Your task to perform on an android device: Search for Mexican restaurants on Maps Image 0: 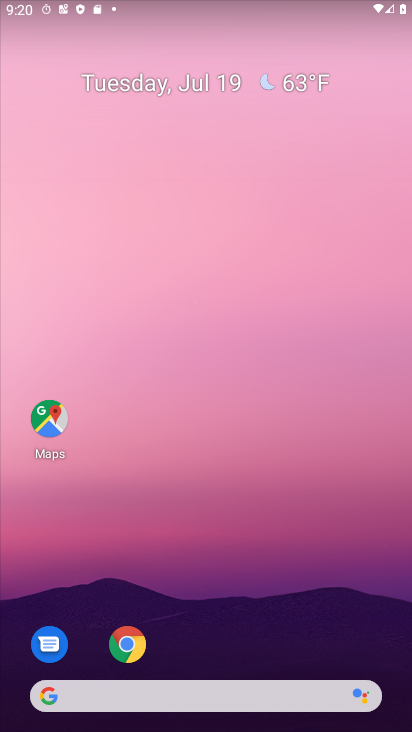
Step 0: drag from (287, 688) to (245, 225)
Your task to perform on an android device: Search for Mexican restaurants on Maps Image 1: 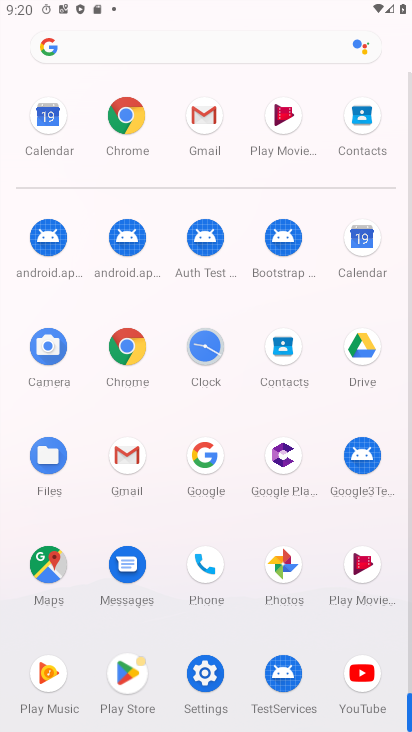
Step 1: click (52, 563)
Your task to perform on an android device: Search for Mexican restaurants on Maps Image 2: 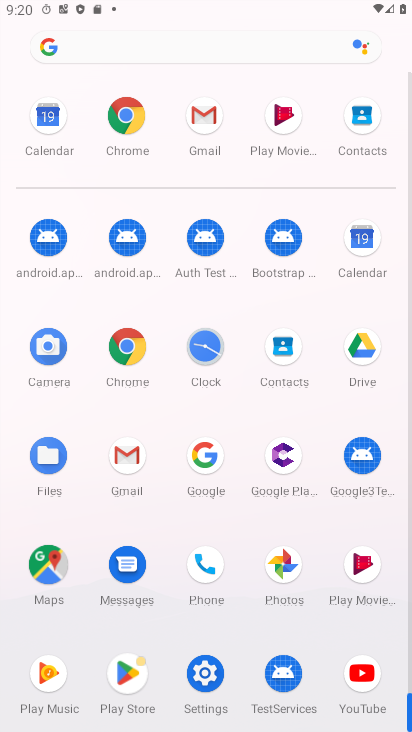
Step 2: click (52, 563)
Your task to perform on an android device: Search for Mexican restaurants on Maps Image 3: 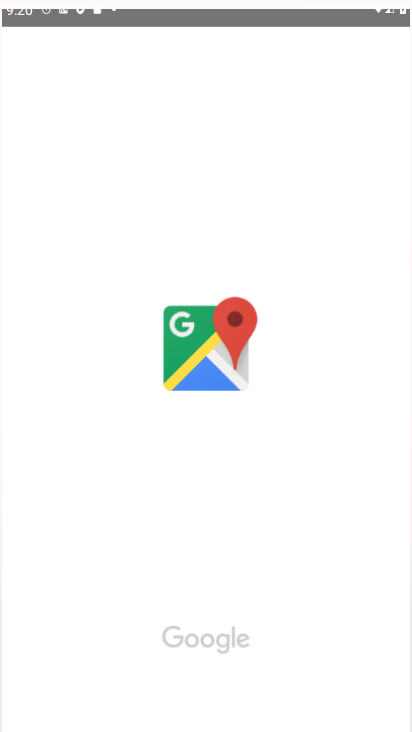
Step 3: click (52, 563)
Your task to perform on an android device: Search for Mexican restaurants on Maps Image 4: 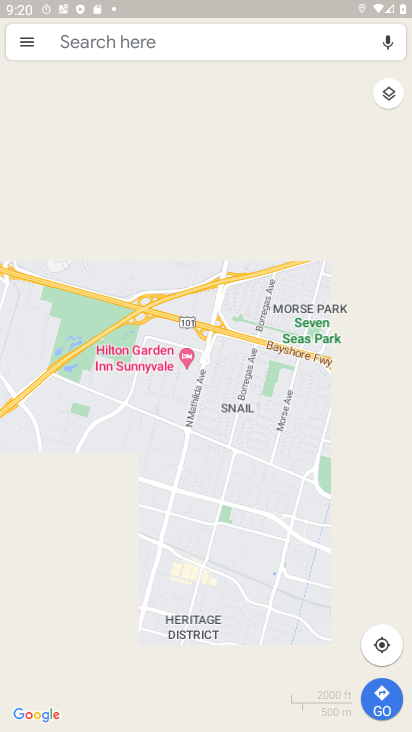
Step 4: click (91, 35)
Your task to perform on an android device: Search for Mexican restaurants on Maps Image 5: 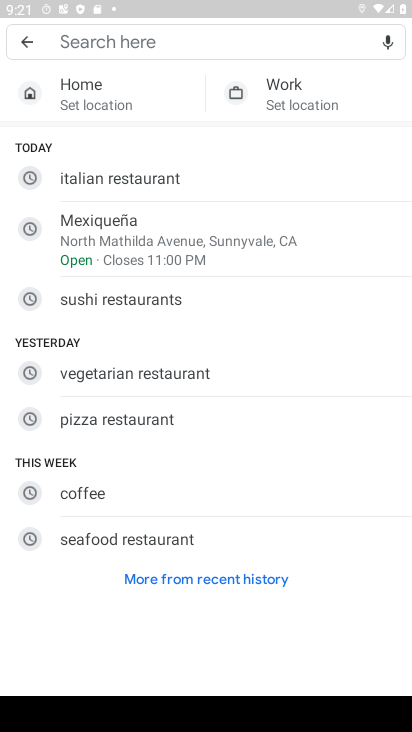
Step 5: type "mexican restaurants"
Your task to perform on an android device: Search for Mexican restaurants on Maps Image 6: 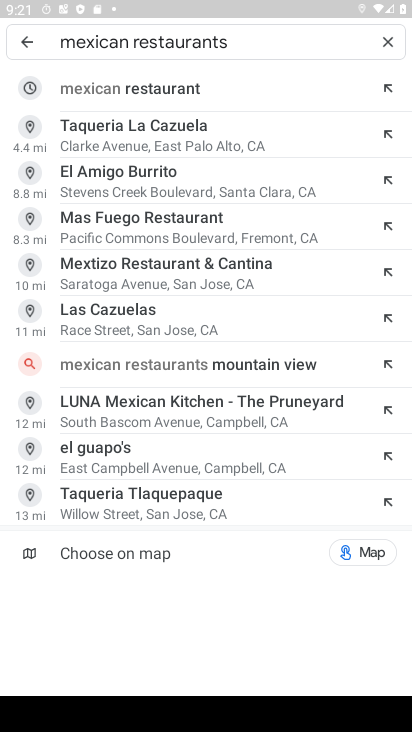
Step 6: click (153, 92)
Your task to perform on an android device: Search for Mexican restaurants on Maps Image 7: 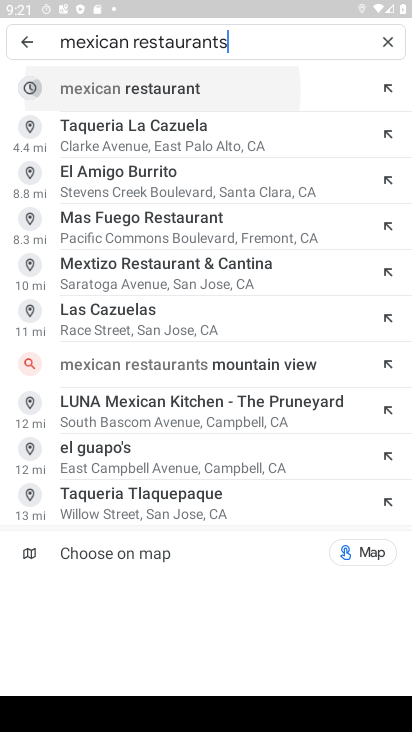
Step 7: click (163, 94)
Your task to perform on an android device: Search for Mexican restaurants on Maps Image 8: 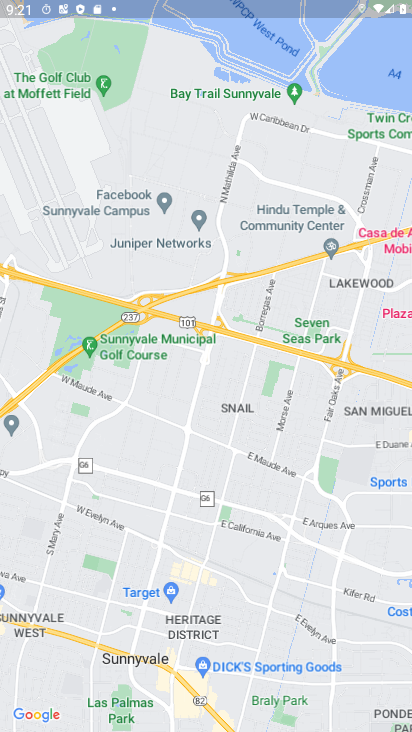
Step 8: task complete